Your task to perform on an android device: What's the news in Paraguay? Image 0: 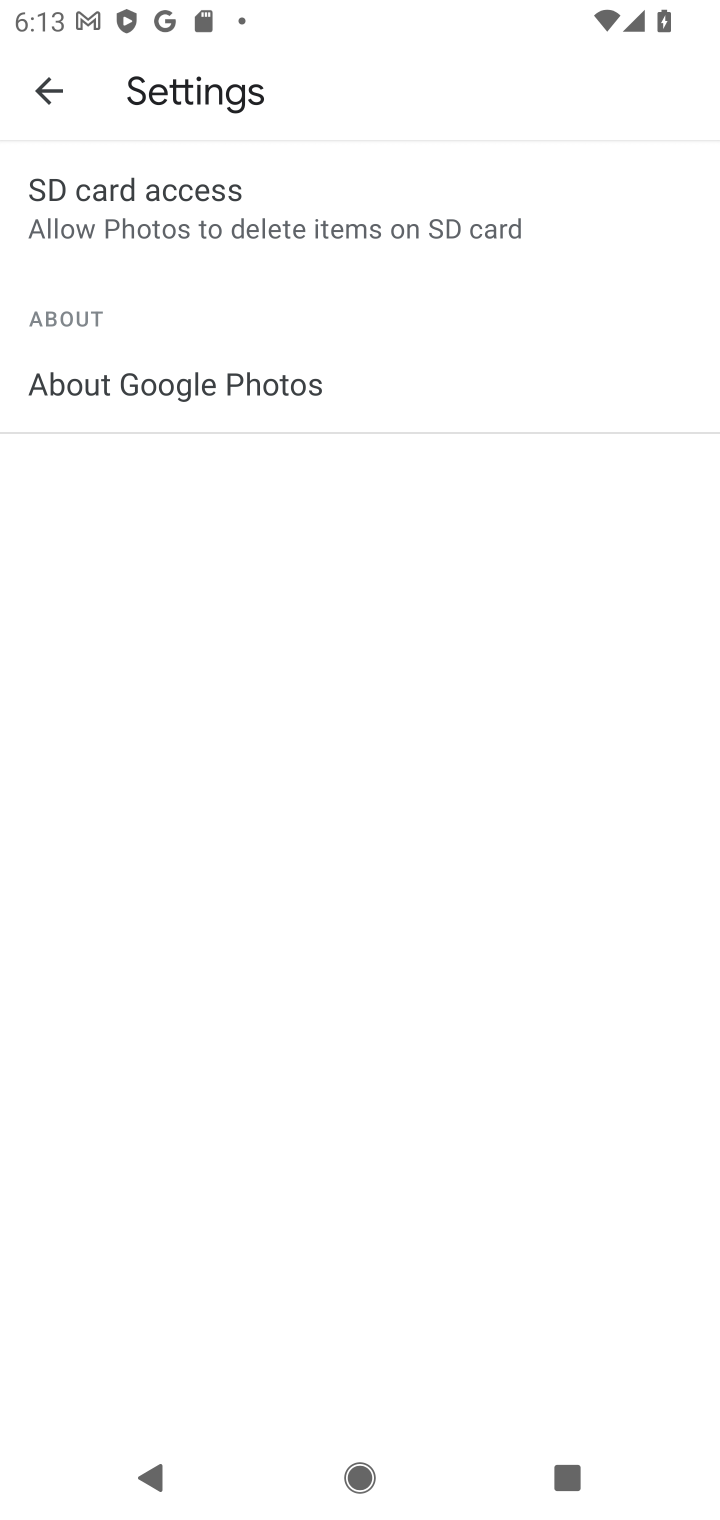
Step 0: press home button
Your task to perform on an android device: What's the news in Paraguay? Image 1: 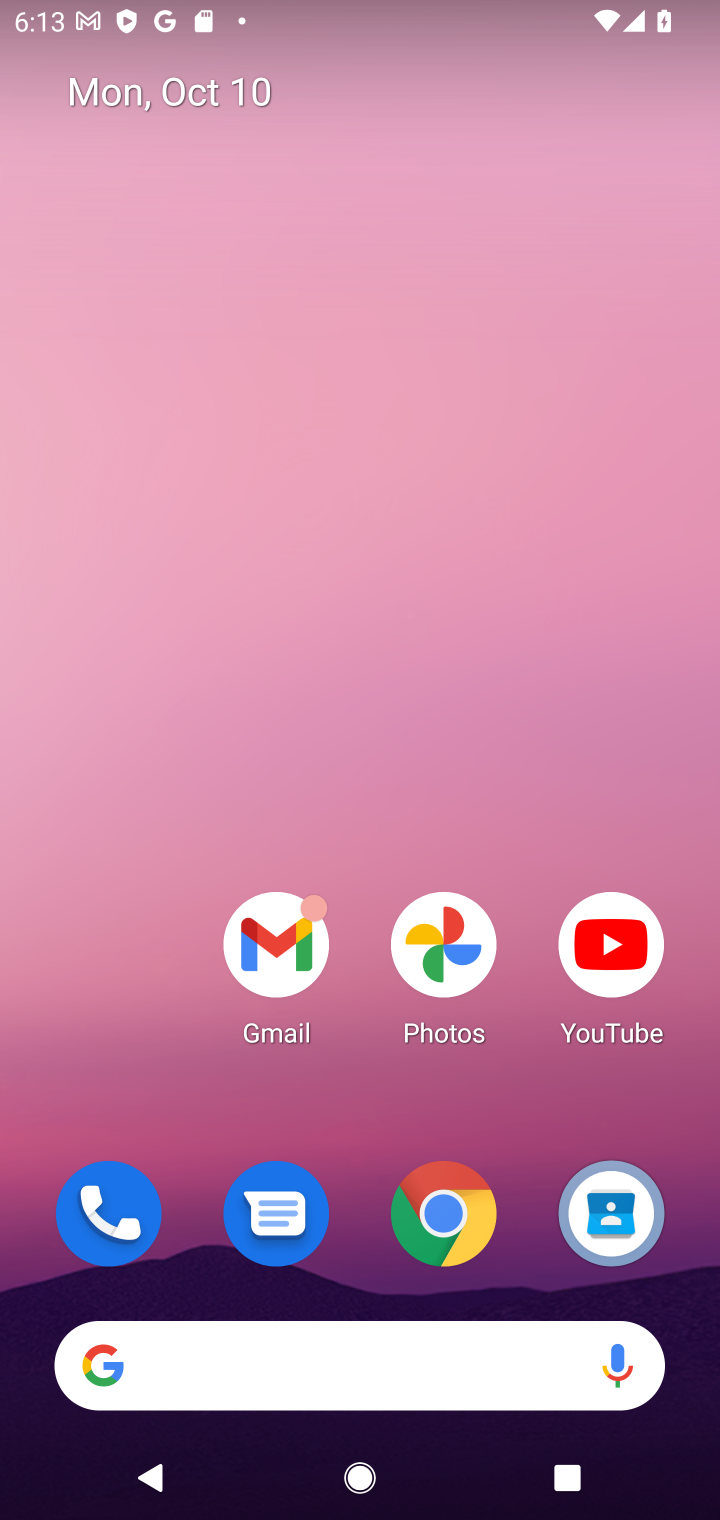
Step 1: click (420, 1350)
Your task to perform on an android device: What's the news in Paraguay? Image 2: 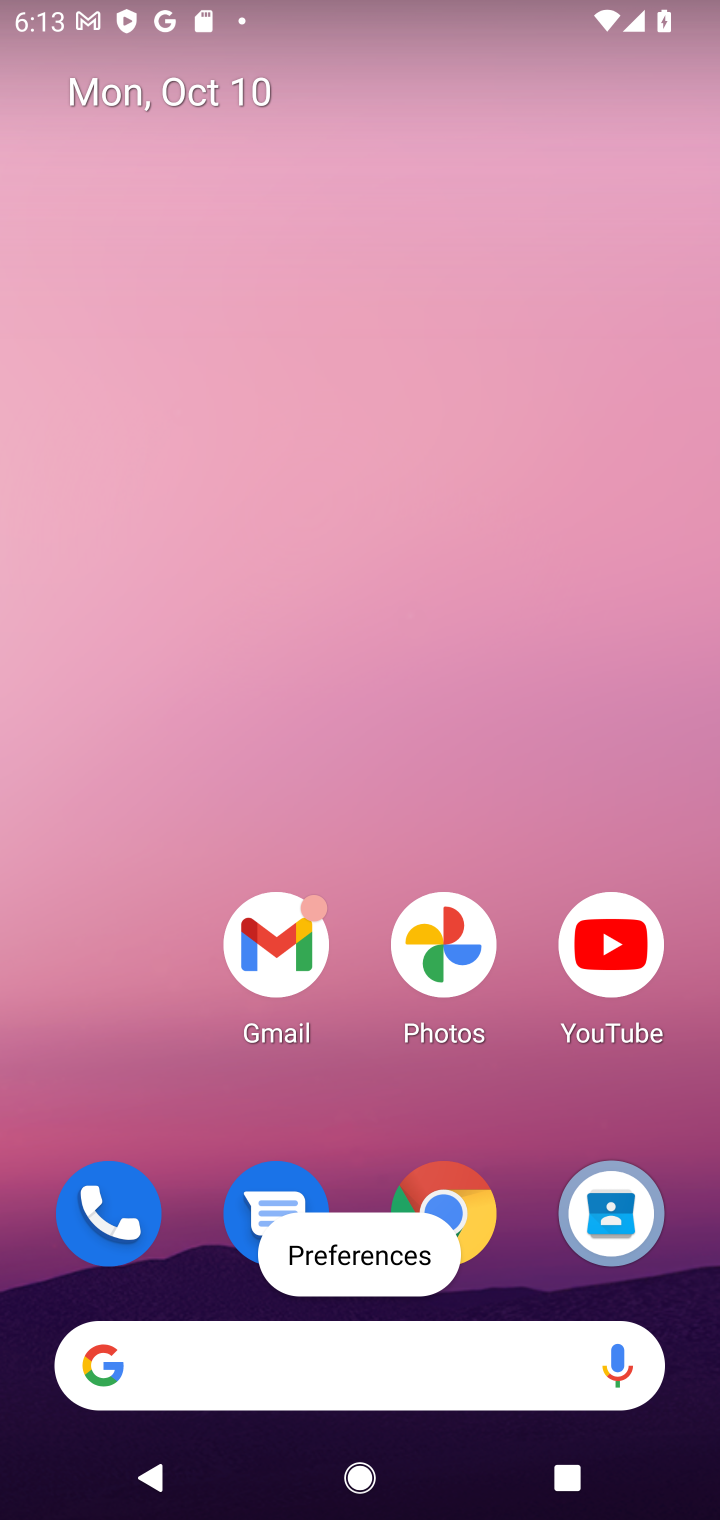
Step 2: click (381, 1349)
Your task to perform on an android device: What's the news in Paraguay? Image 3: 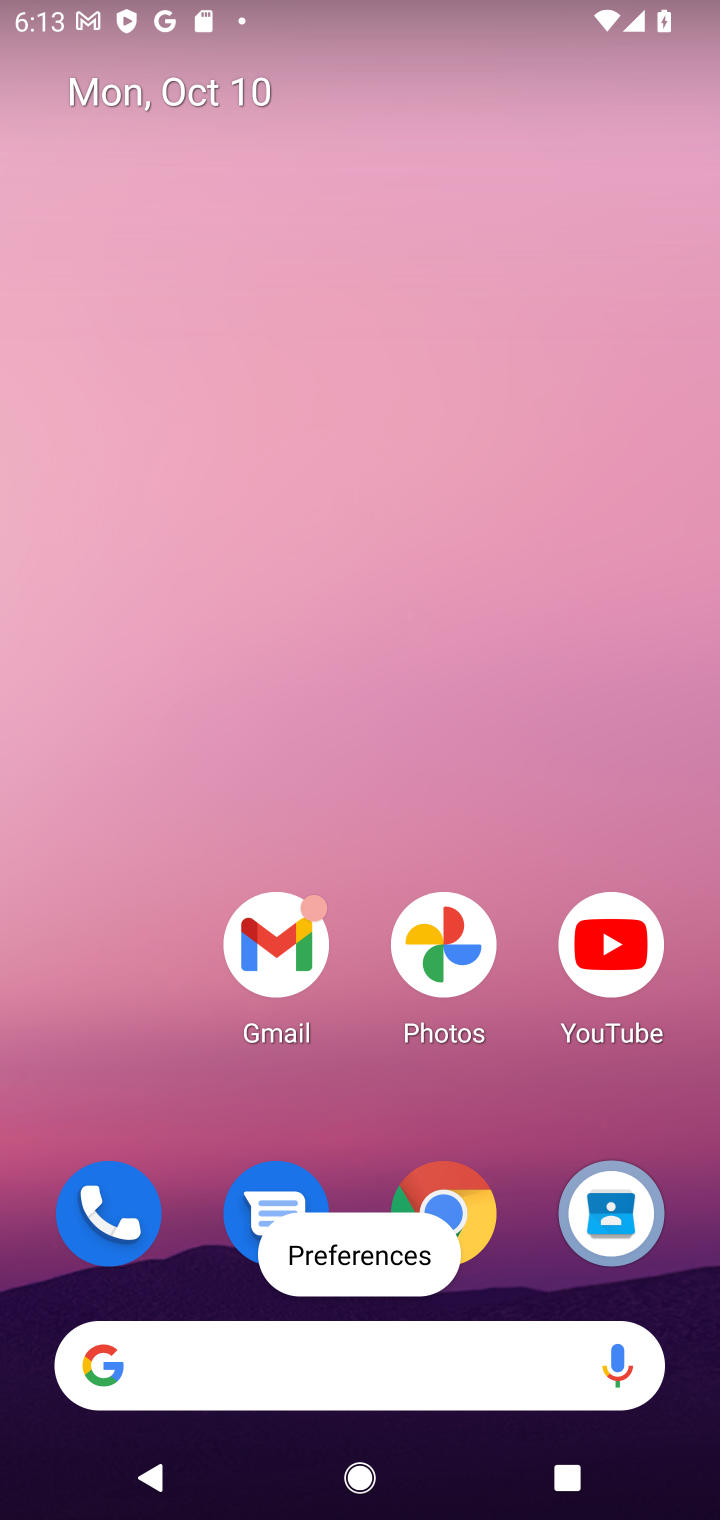
Step 3: click (353, 1349)
Your task to perform on an android device: What's the news in Paraguay? Image 4: 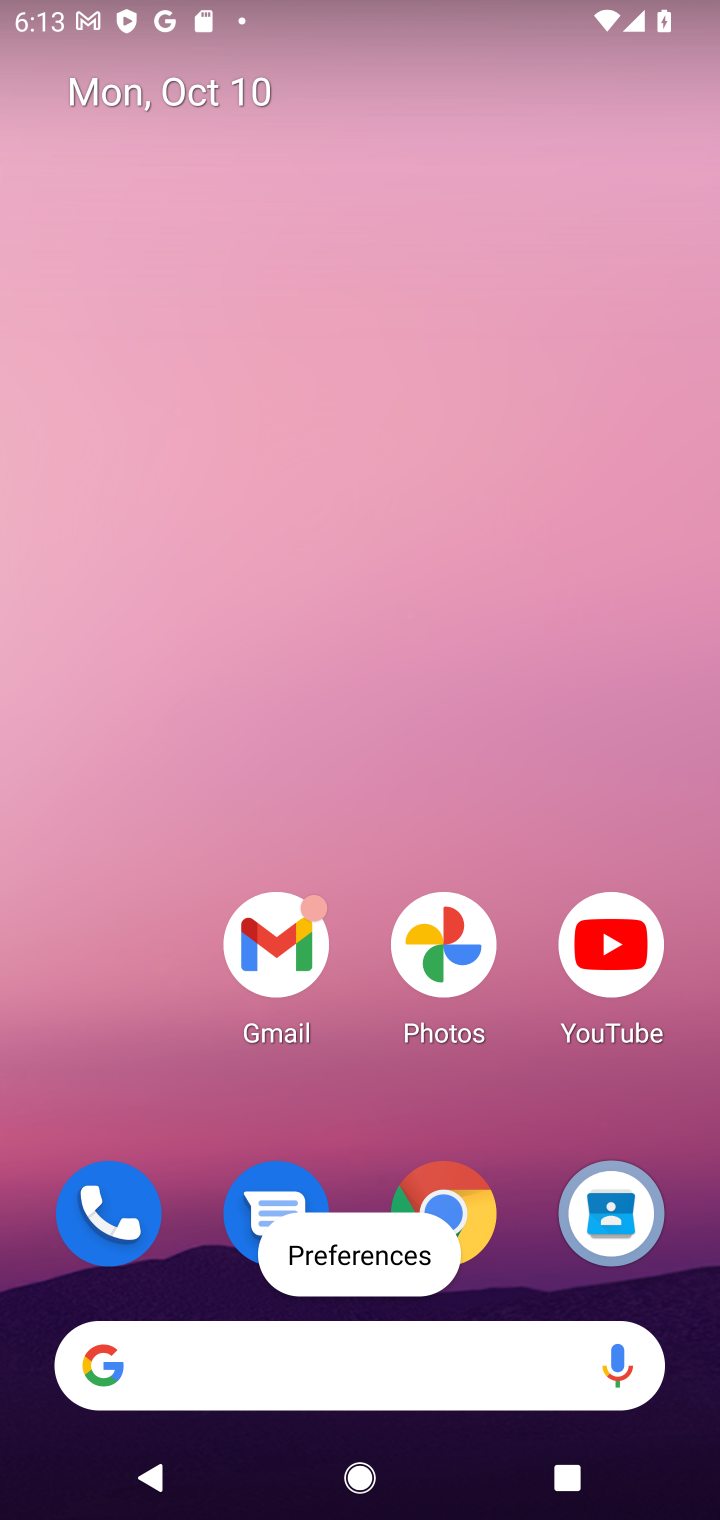
Step 4: click (343, 1375)
Your task to perform on an android device: What's the news in Paraguay? Image 5: 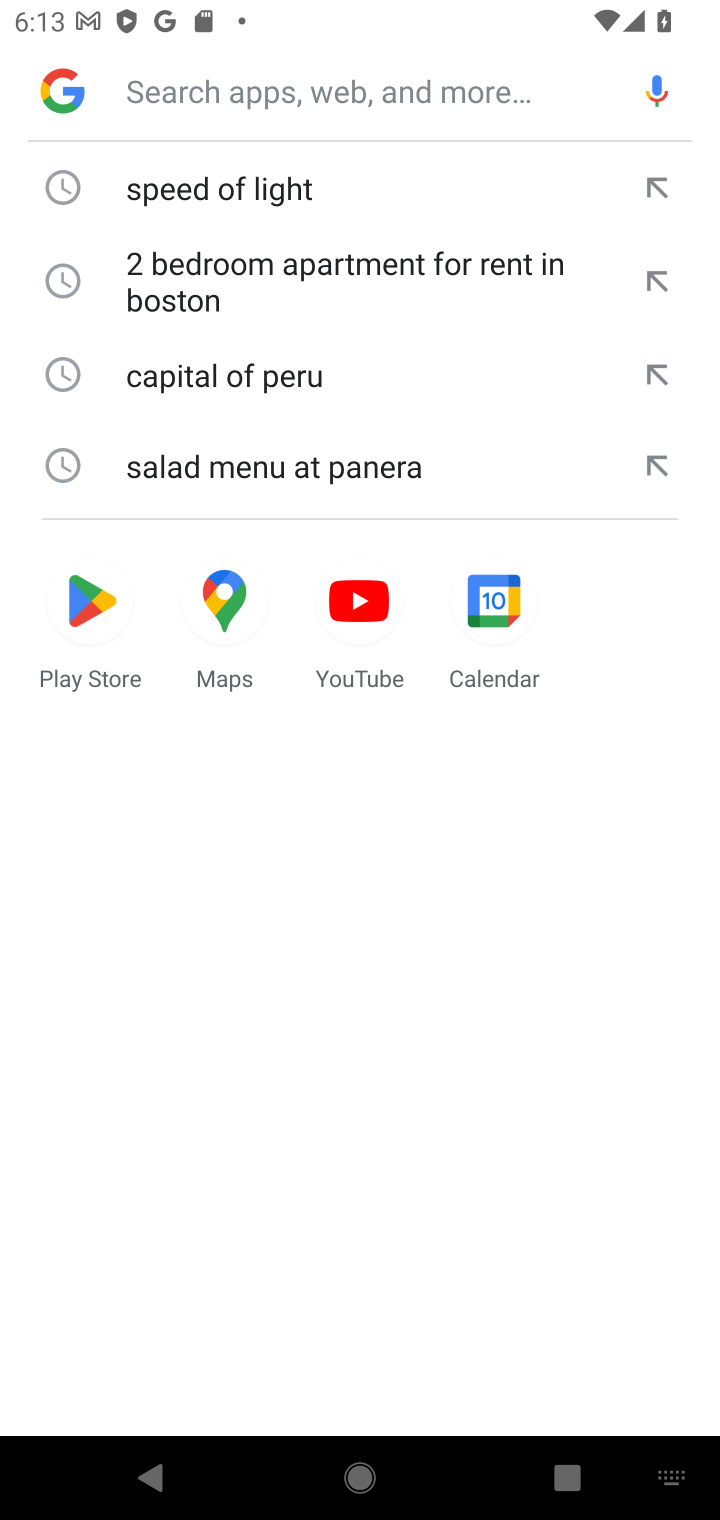
Step 5: type "news in Paraguay"
Your task to perform on an android device: What's the news in Paraguay? Image 6: 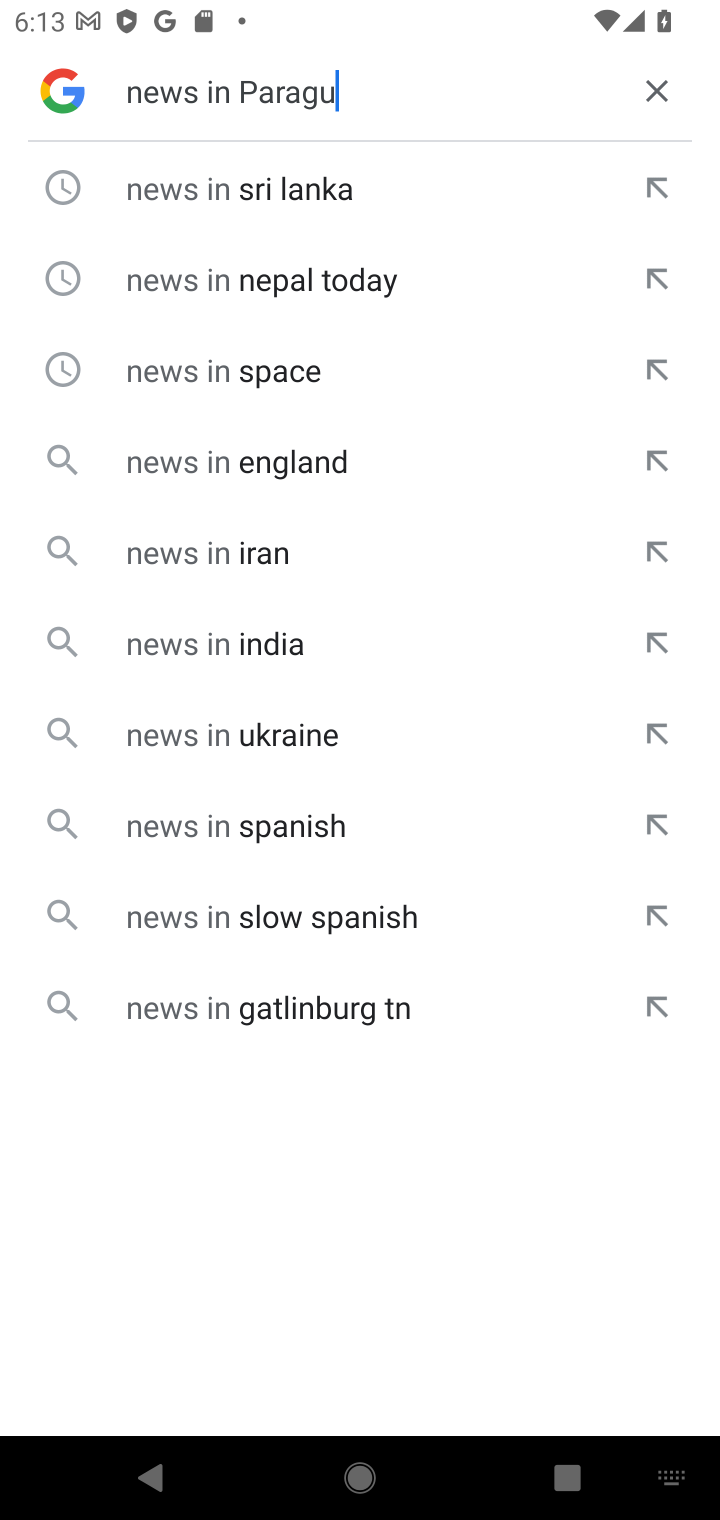
Step 6: type ""
Your task to perform on an android device: What's the news in Paraguay? Image 7: 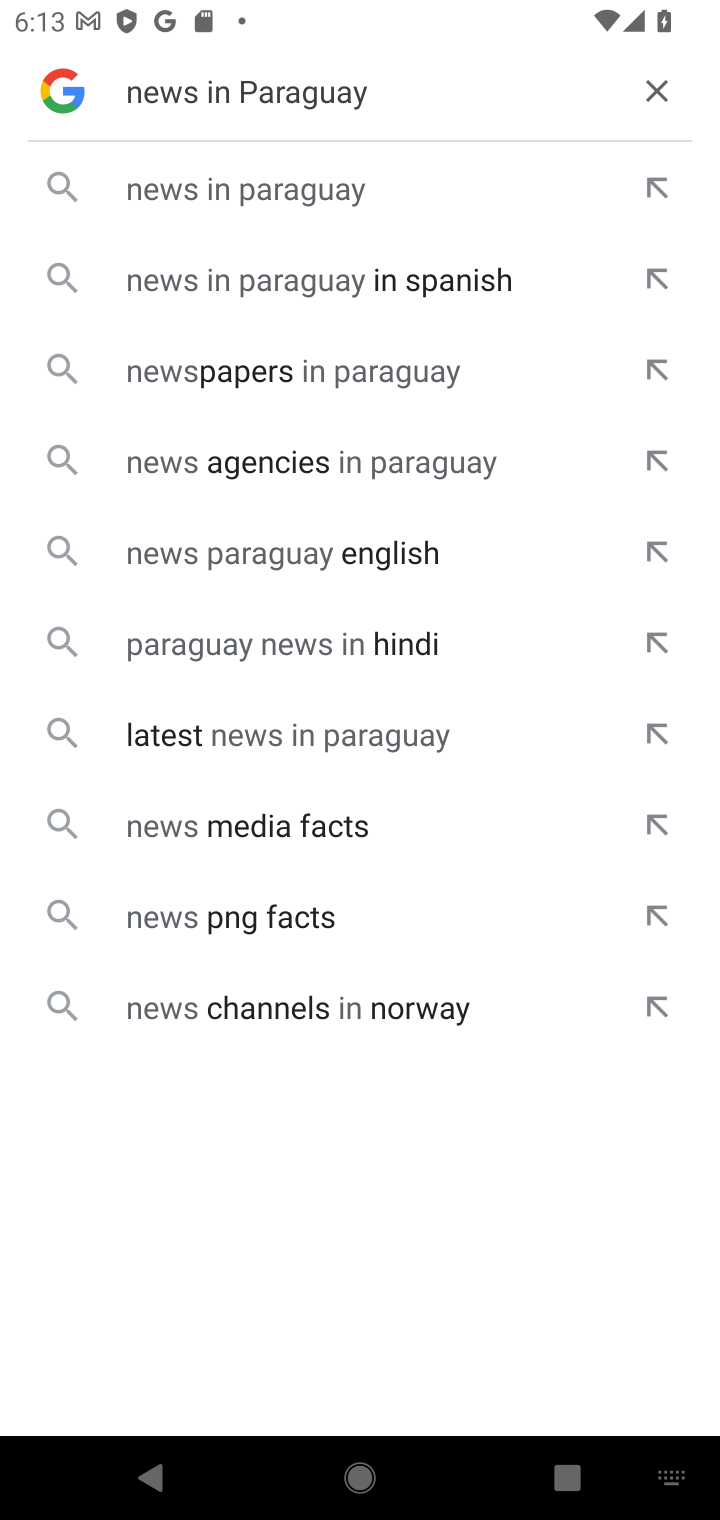
Step 7: click (336, 197)
Your task to perform on an android device: What's the news in Paraguay? Image 8: 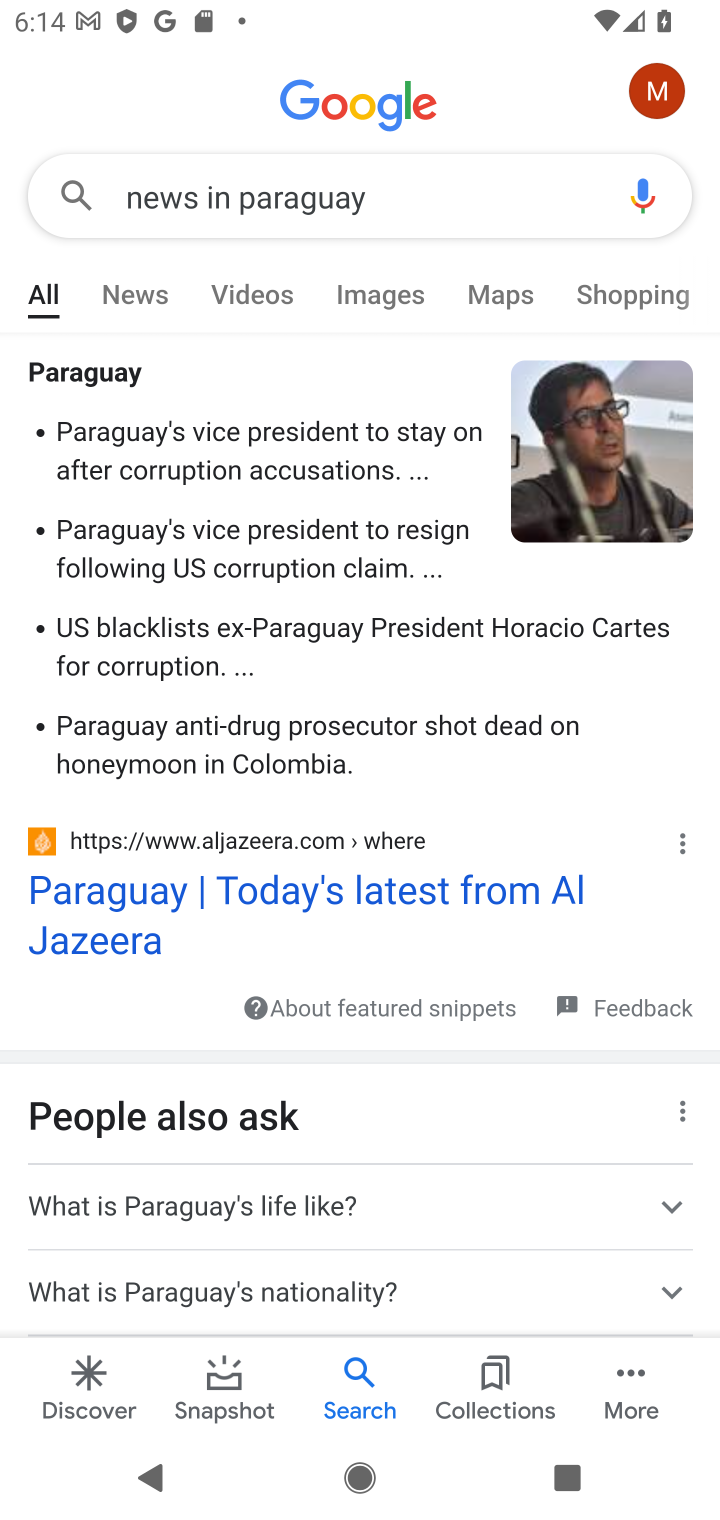
Step 8: task complete